Your task to perform on an android device: Go to Maps Image 0: 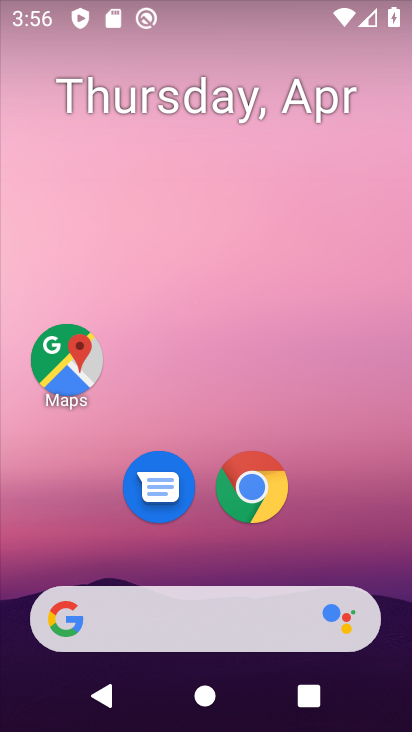
Step 0: click (66, 355)
Your task to perform on an android device: Go to Maps Image 1: 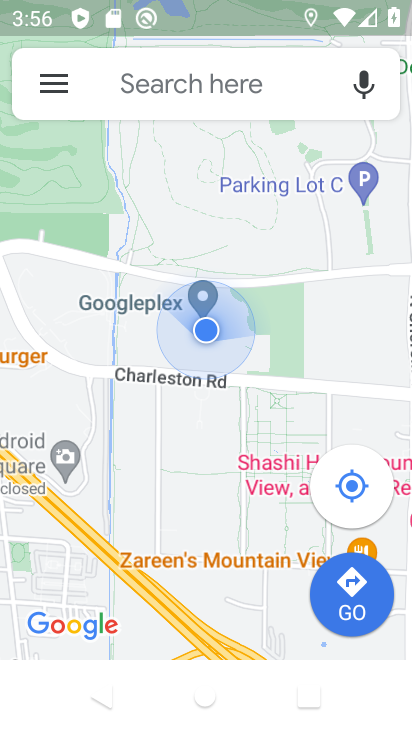
Step 1: task complete